Your task to perform on an android device: turn on javascript in the chrome app Image 0: 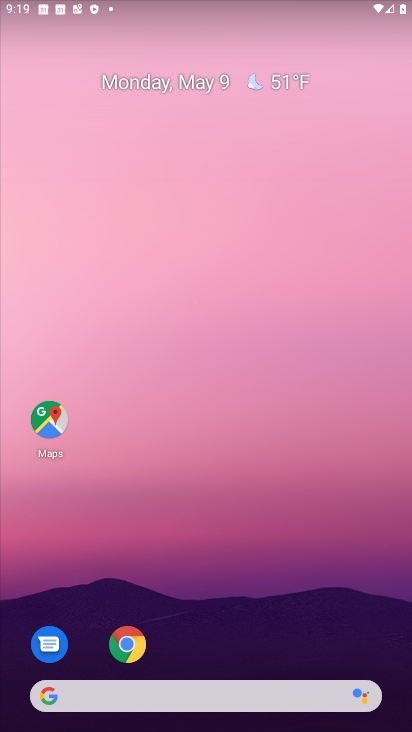
Step 0: drag from (192, 668) to (95, 45)
Your task to perform on an android device: turn on javascript in the chrome app Image 1: 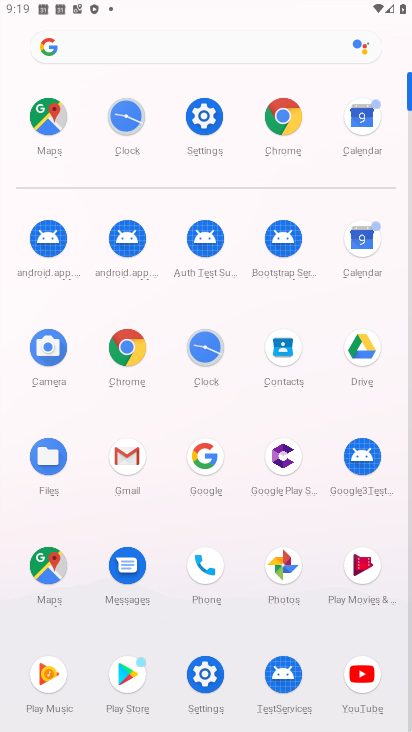
Step 1: click (276, 109)
Your task to perform on an android device: turn on javascript in the chrome app Image 2: 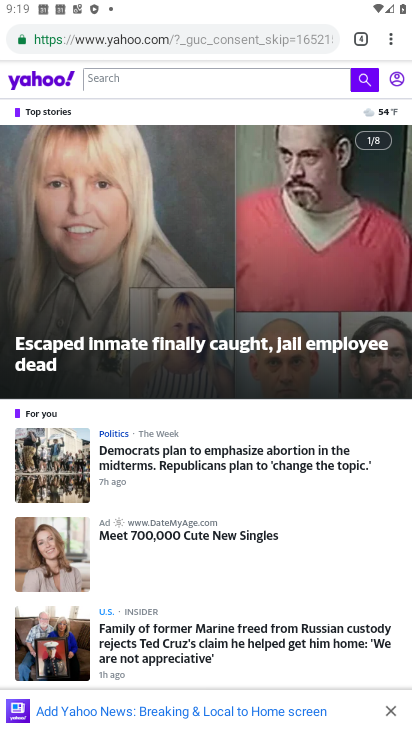
Step 2: click (386, 47)
Your task to perform on an android device: turn on javascript in the chrome app Image 3: 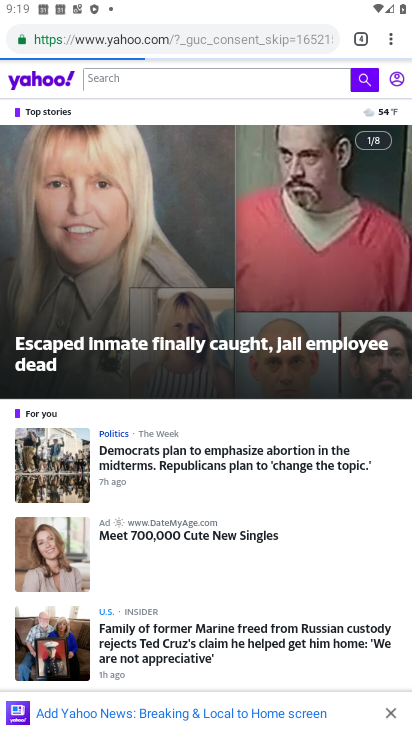
Step 3: click (391, 29)
Your task to perform on an android device: turn on javascript in the chrome app Image 4: 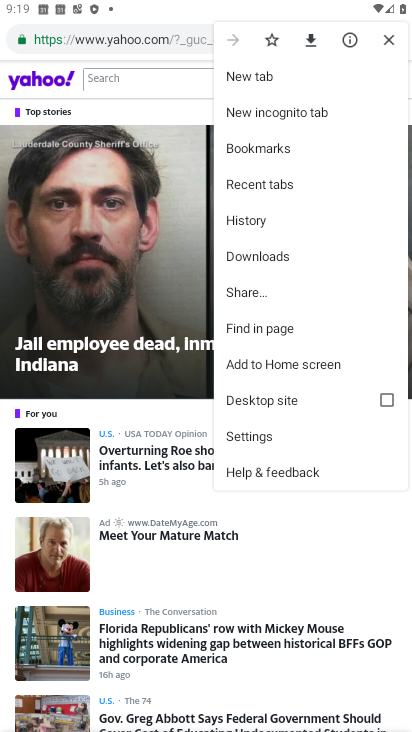
Step 4: click (256, 440)
Your task to perform on an android device: turn on javascript in the chrome app Image 5: 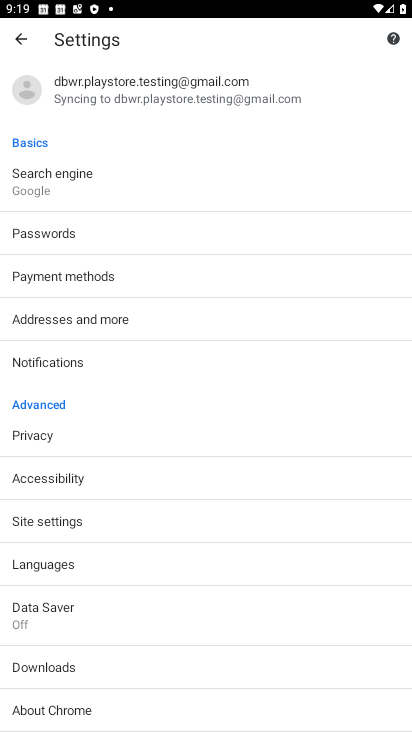
Step 5: drag from (179, 562) to (137, 122)
Your task to perform on an android device: turn on javascript in the chrome app Image 6: 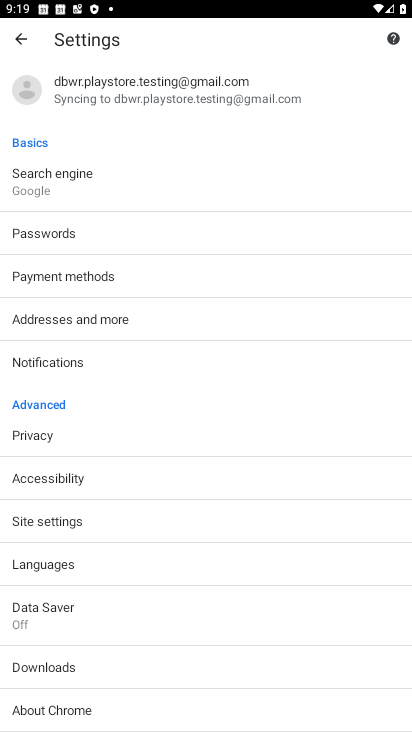
Step 6: click (65, 507)
Your task to perform on an android device: turn on javascript in the chrome app Image 7: 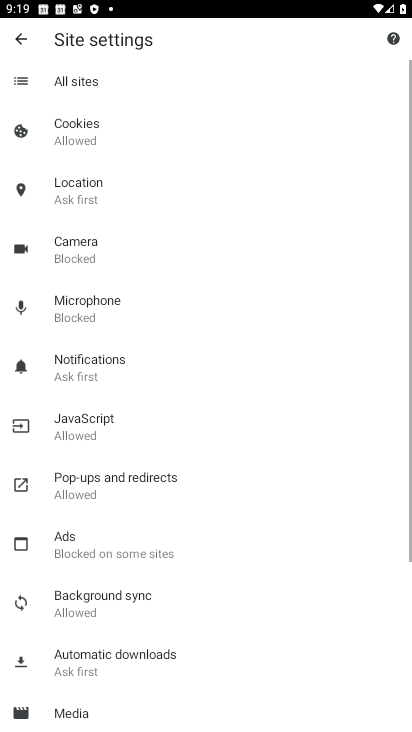
Step 7: click (84, 418)
Your task to perform on an android device: turn on javascript in the chrome app Image 8: 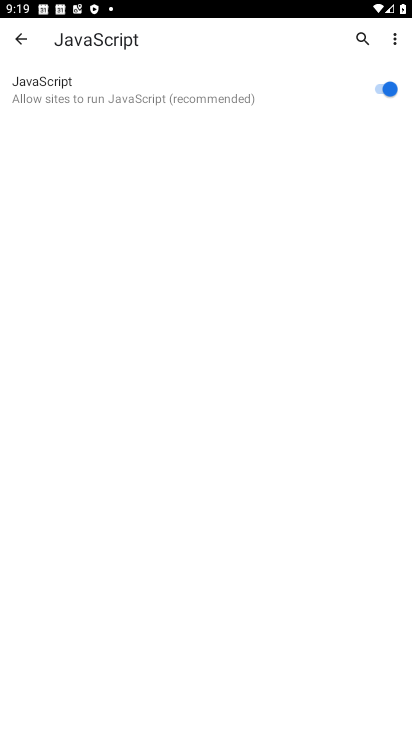
Step 8: task complete